Your task to perform on an android device: turn on data saver in the chrome app Image 0: 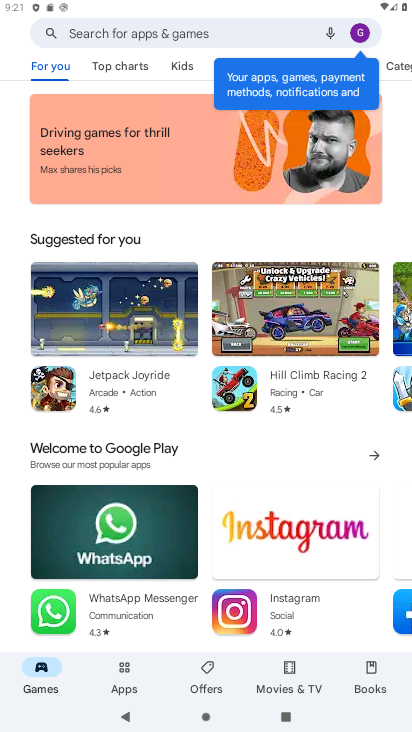
Step 0: press home button
Your task to perform on an android device: turn on data saver in the chrome app Image 1: 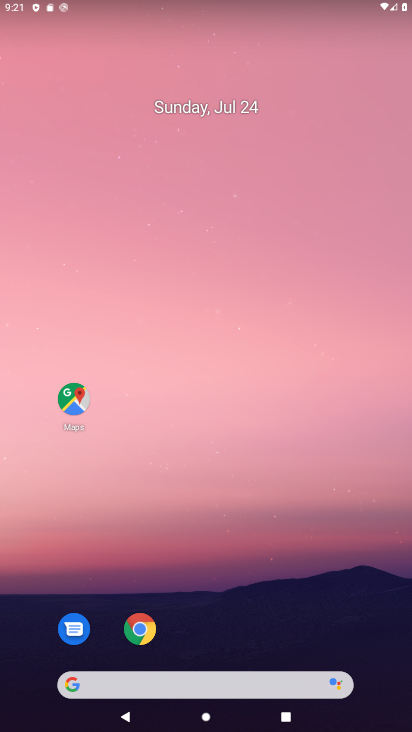
Step 1: click (149, 631)
Your task to perform on an android device: turn on data saver in the chrome app Image 2: 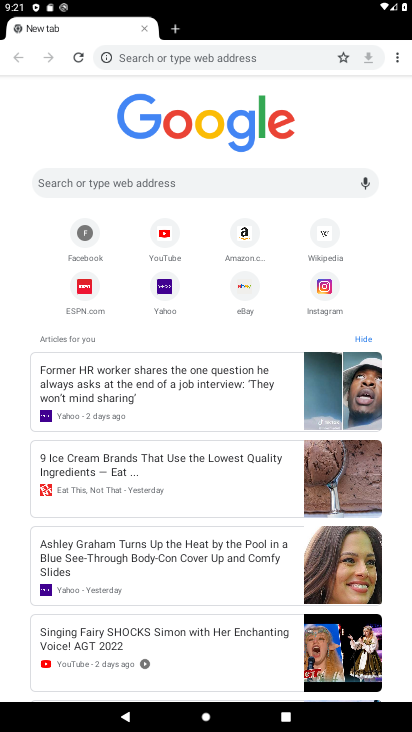
Step 2: click (399, 60)
Your task to perform on an android device: turn on data saver in the chrome app Image 3: 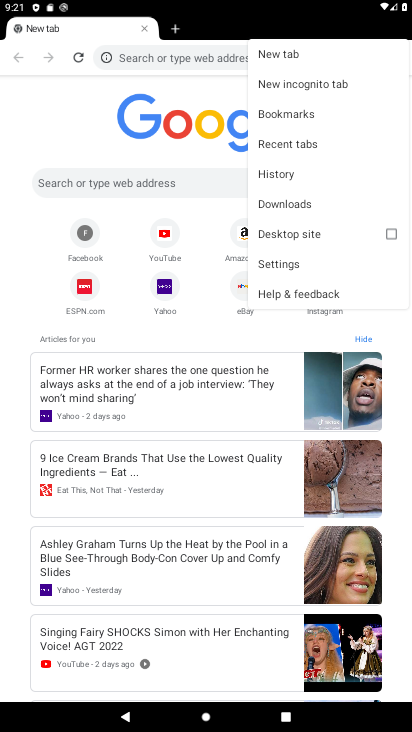
Step 3: click (265, 258)
Your task to perform on an android device: turn on data saver in the chrome app Image 4: 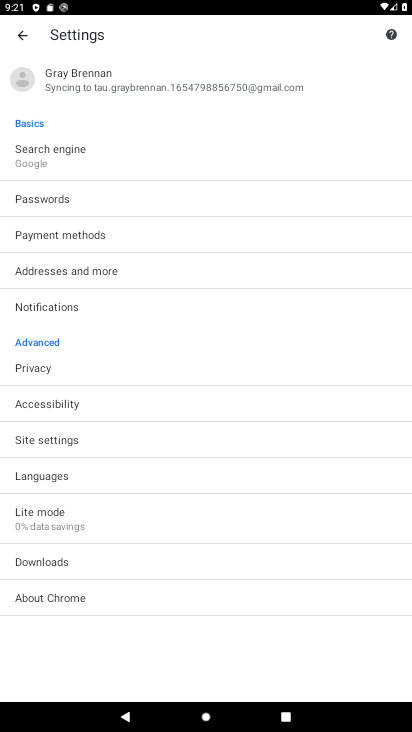
Step 4: click (122, 440)
Your task to perform on an android device: turn on data saver in the chrome app Image 5: 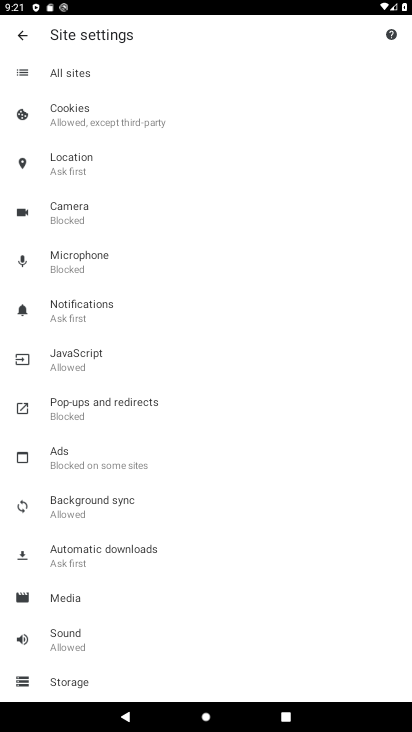
Step 5: task complete